Your task to perform on an android device: empty trash in the gmail app Image 0: 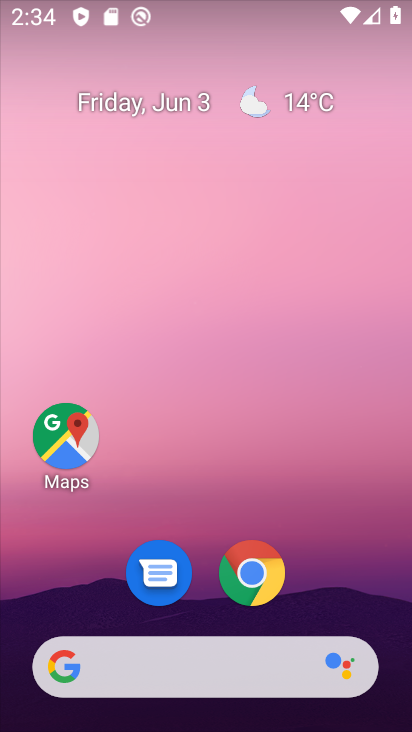
Step 0: drag from (211, 652) to (244, 1)
Your task to perform on an android device: empty trash in the gmail app Image 1: 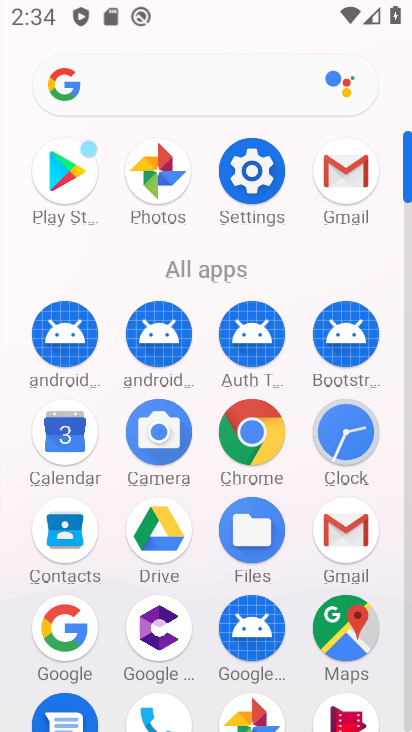
Step 1: click (342, 513)
Your task to perform on an android device: empty trash in the gmail app Image 2: 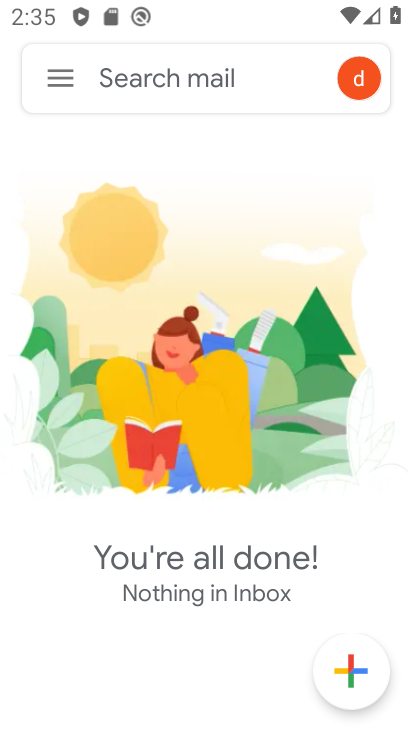
Step 2: click (70, 78)
Your task to perform on an android device: empty trash in the gmail app Image 3: 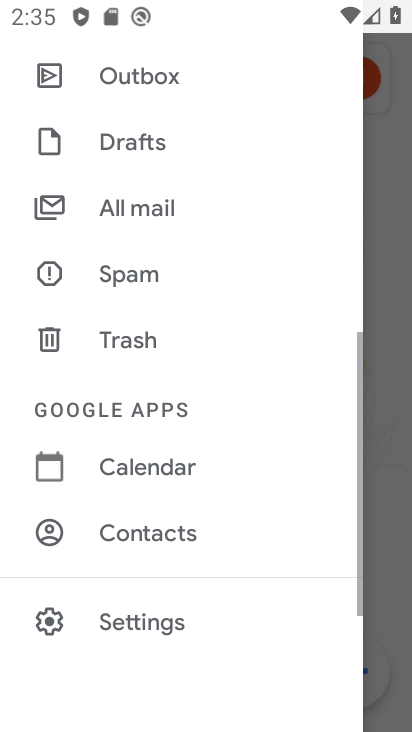
Step 3: click (140, 341)
Your task to perform on an android device: empty trash in the gmail app Image 4: 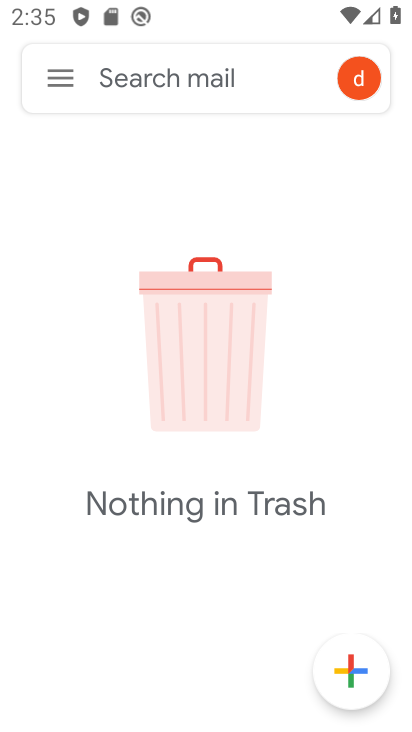
Step 4: task complete